Your task to perform on an android device: stop showing notifications on the lock screen Image 0: 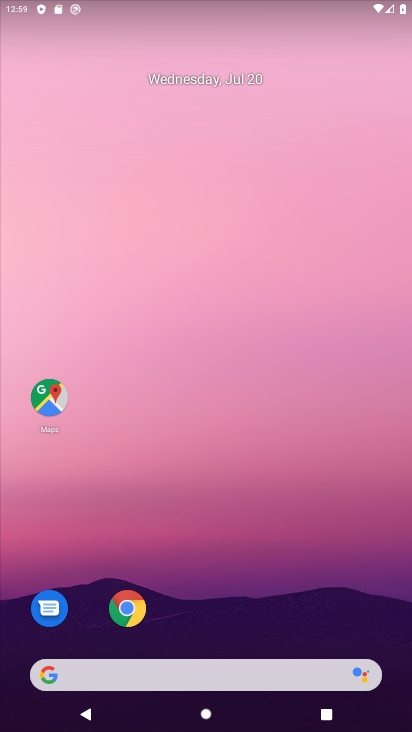
Step 0: drag from (246, 641) to (336, 151)
Your task to perform on an android device: stop showing notifications on the lock screen Image 1: 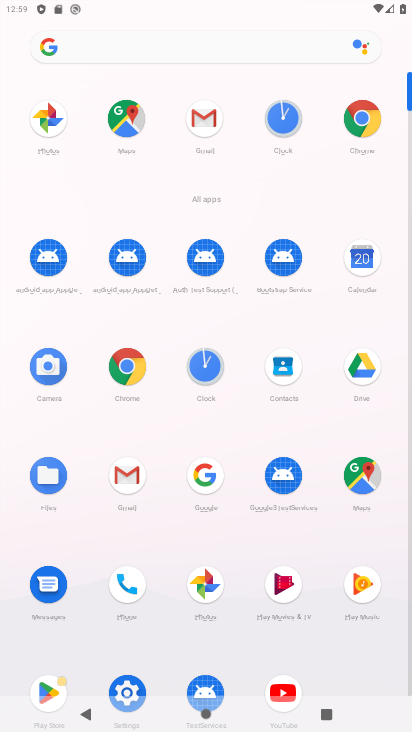
Step 1: click (129, 689)
Your task to perform on an android device: stop showing notifications on the lock screen Image 2: 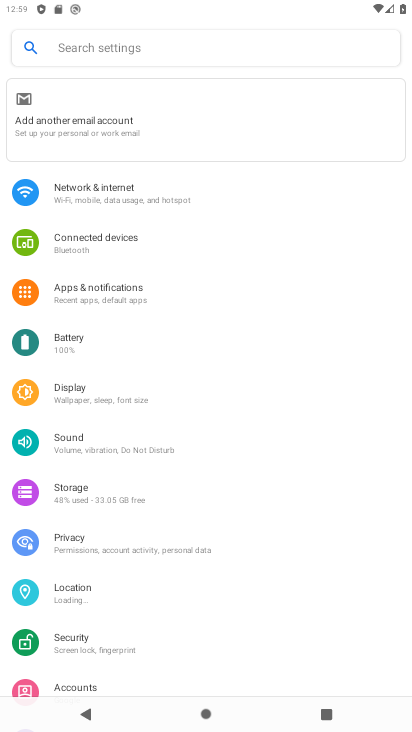
Step 2: click (158, 289)
Your task to perform on an android device: stop showing notifications on the lock screen Image 3: 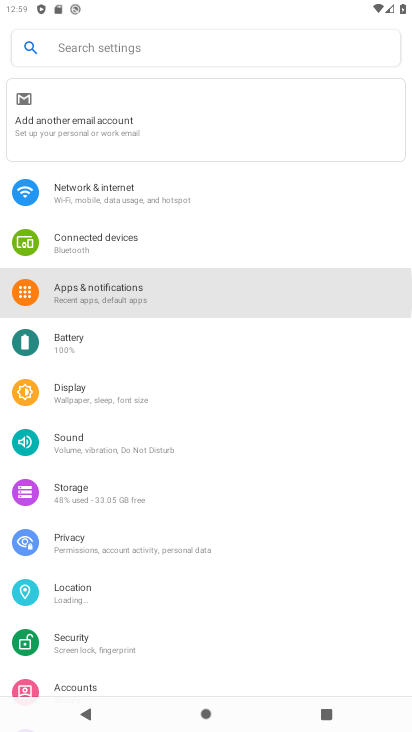
Step 3: click (158, 289)
Your task to perform on an android device: stop showing notifications on the lock screen Image 4: 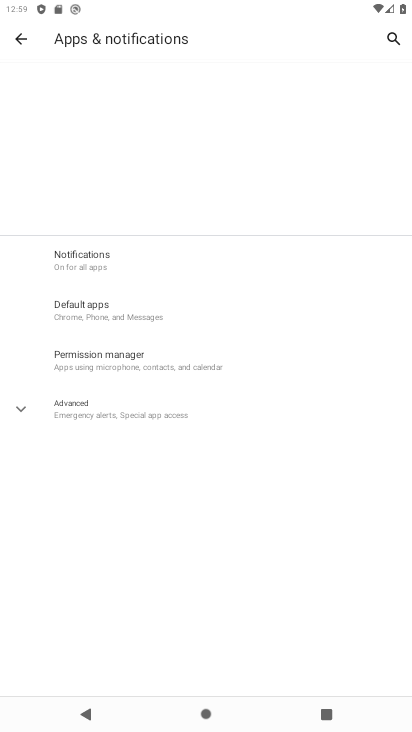
Step 4: click (141, 261)
Your task to perform on an android device: stop showing notifications on the lock screen Image 5: 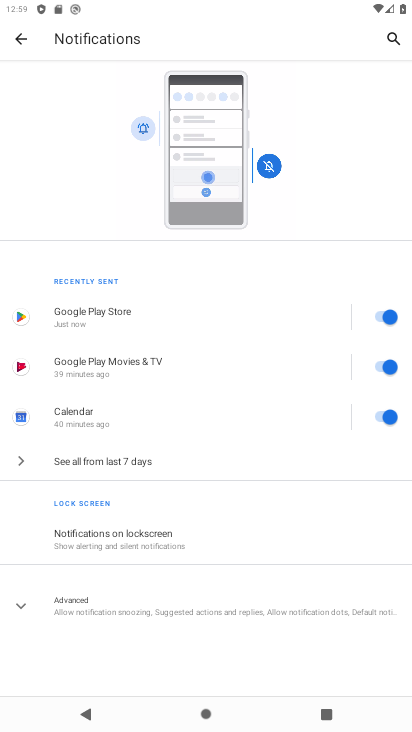
Step 5: click (201, 550)
Your task to perform on an android device: stop showing notifications on the lock screen Image 6: 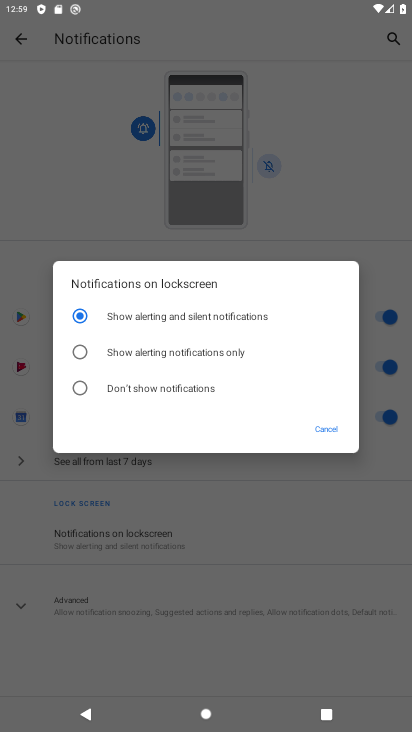
Step 6: click (164, 396)
Your task to perform on an android device: stop showing notifications on the lock screen Image 7: 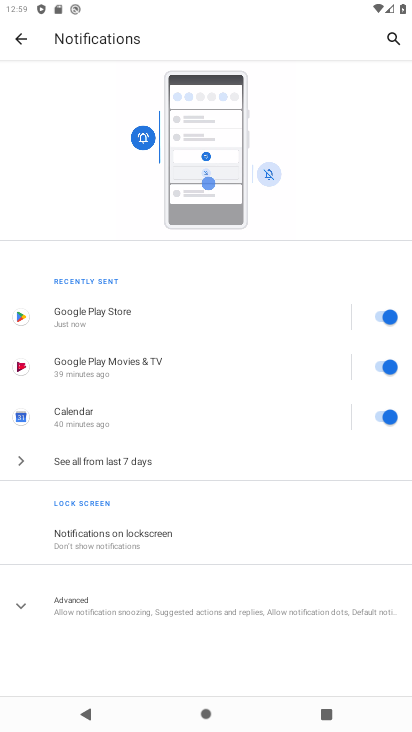
Step 7: task complete